Your task to perform on an android device: change text size in settings app Image 0: 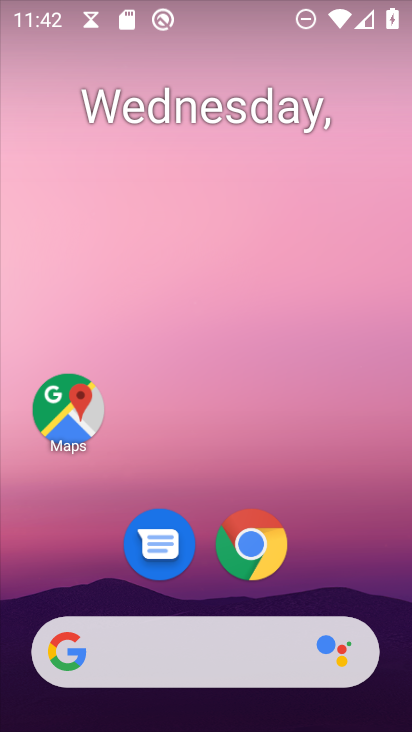
Step 0: drag from (236, 681) to (326, 184)
Your task to perform on an android device: change text size in settings app Image 1: 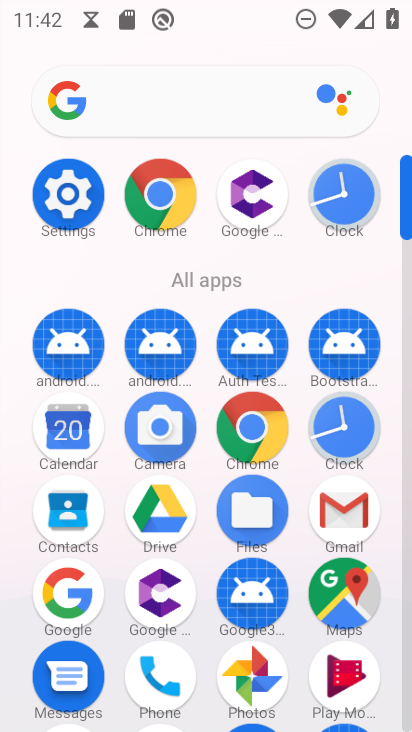
Step 1: click (70, 202)
Your task to perform on an android device: change text size in settings app Image 2: 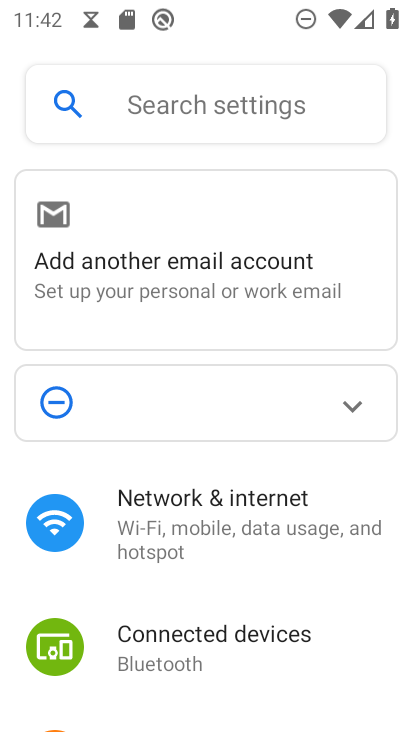
Step 2: drag from (172, 597) to (202, 556)
Your task to perform on an android device: change text size in settings app Image 3: 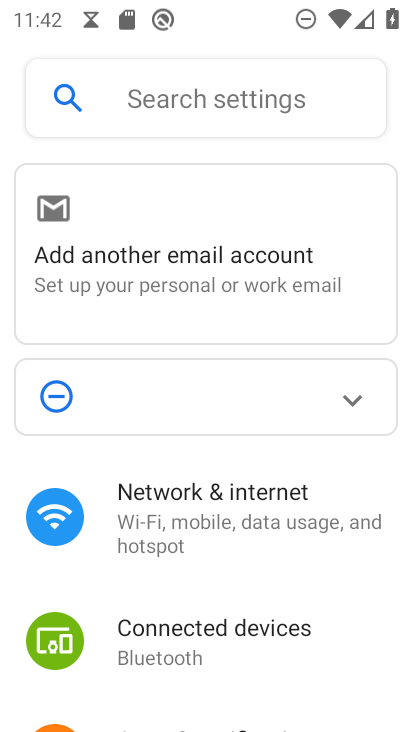
Step 3: click (172, 110)
Your task to perform on an android device: change text size in settings app Image 4: 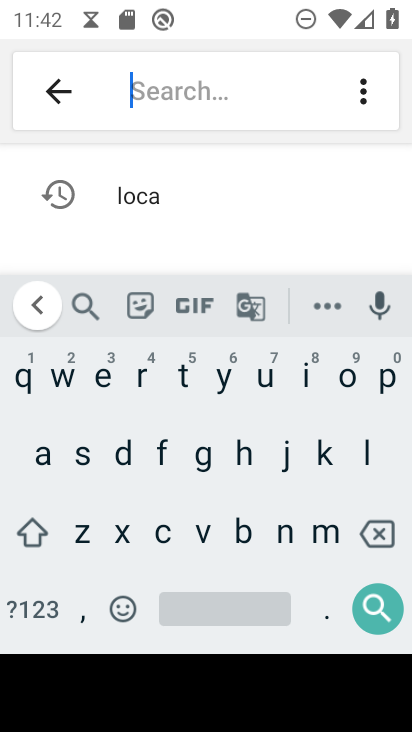
Step 4: click (80, 455)
Your task to perform on an android device: change text size in settings app Image 5: 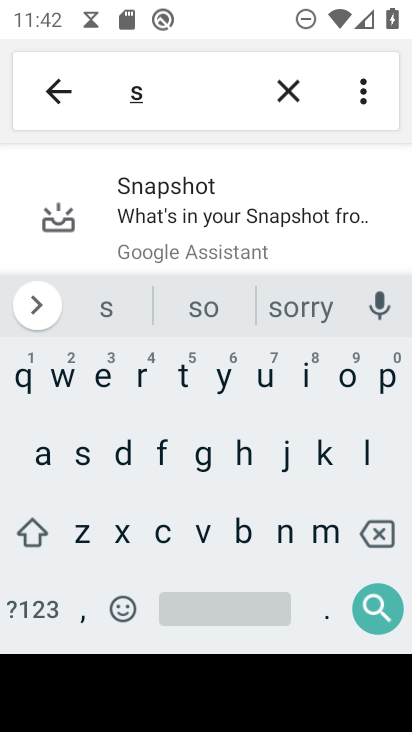
Step 5: click (306, 374)
Your task to perform on an android device: change text size in settings app Image 6: 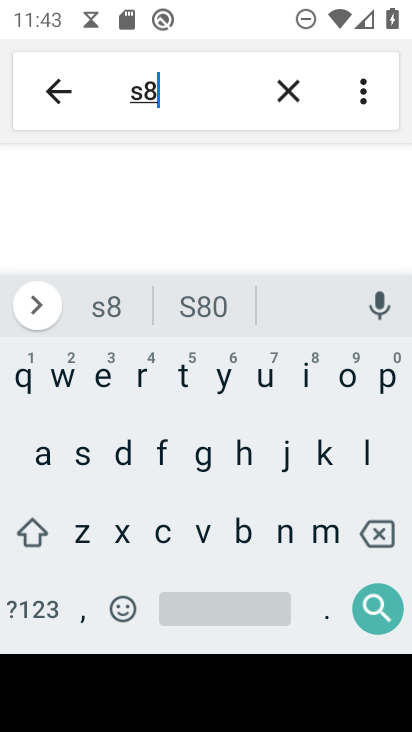
Step 6: click (371, 525)
Your task to perform on an android device: change text size in settings app Image 7: 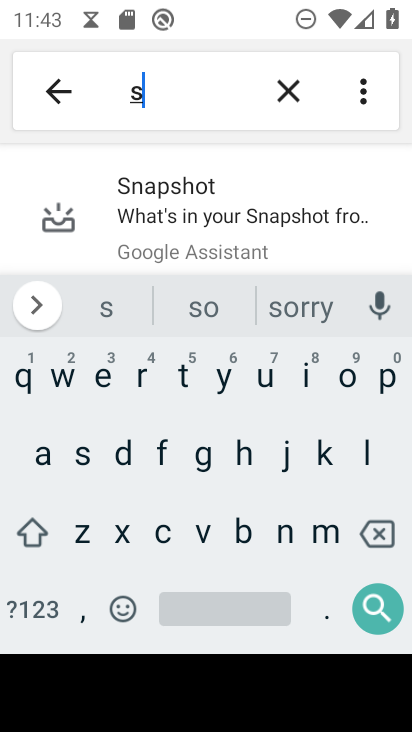
Step 7: click (311, 384)
Your task to perform on an android device: change text size in settings app Image 8: 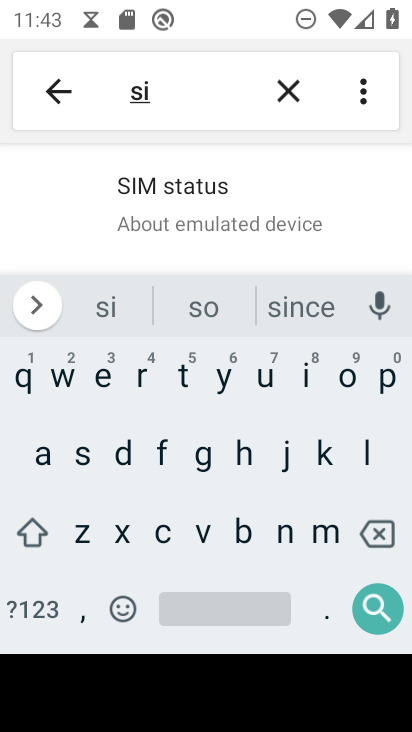
Step 8: click (75, 529)
Your task to perform on an android device: change text size in settings app Image 9: 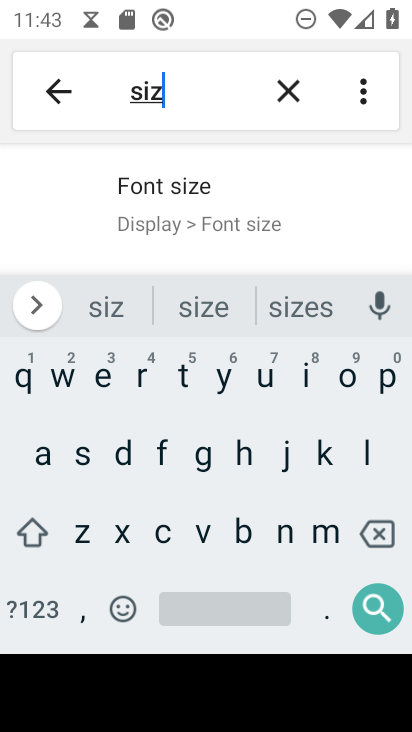
Step 9: click (206, 239)
Your task to perform on an android device: change text size in settings app Image 10: 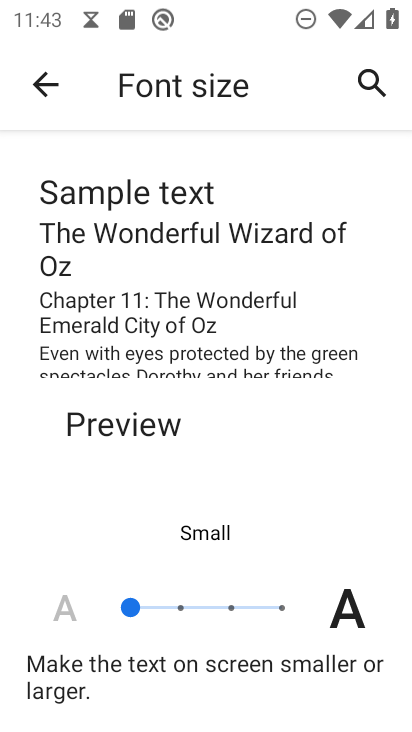
Step 10: click (163, 602)
Your task to perform on an android device: change text size in settings app Image 11: 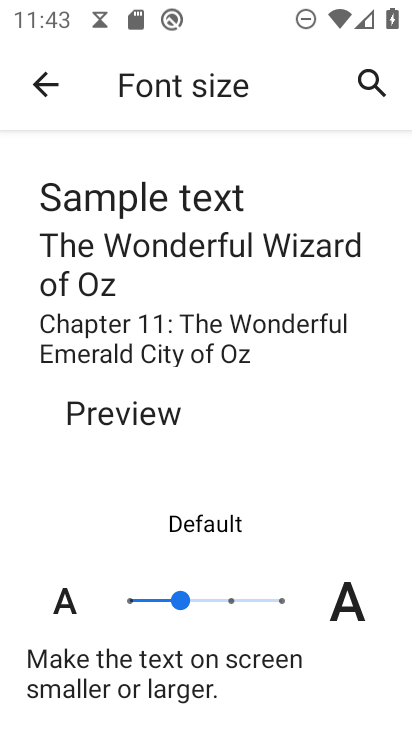
Step 11: task complete